Your task to perform on an android device: choose inbox layout in the gmail app Image 0: 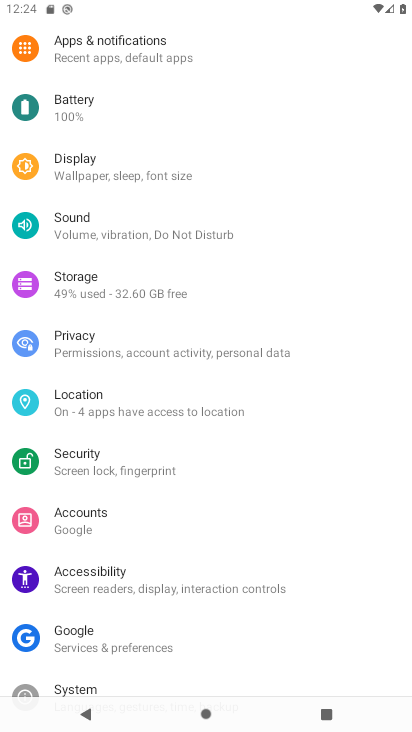
Step 0: press home button
Your task to perform on an android device: choose inbox layout in the gmail app Image 1: 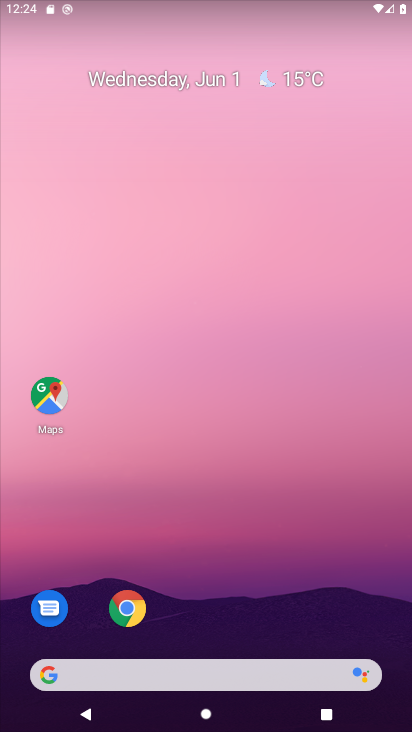
Step 1: drag from (210, 618) to (282, 37)
Your task to perform on an android device: choose inbox layout in the gmail app Image 2: 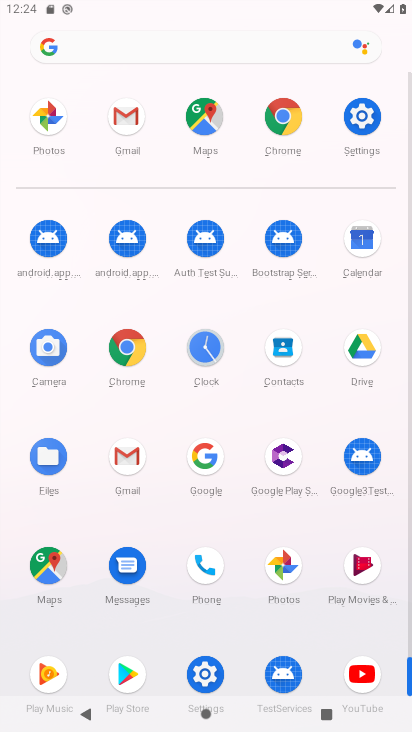
Step 2: click (127, 467)
Your task to perform on an android device: choose inbox layout in the gmail app Image 3: 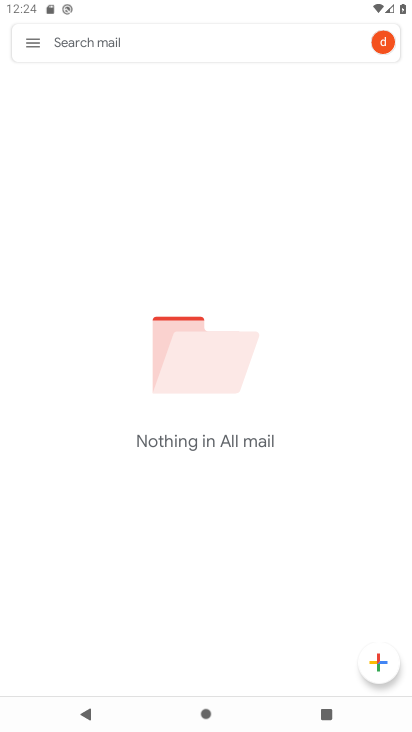
Step 3: click (43, 38)
Your task to perform on an android device: choose inbox layout in the gmail app Image 4: 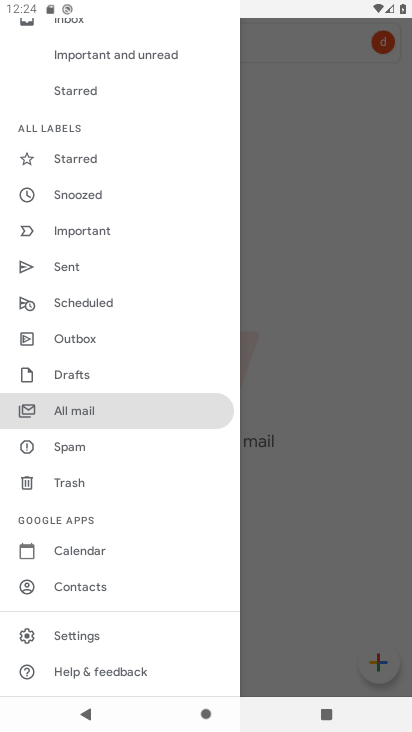
Step 4: click (72, 636)
Your task to perform on an android device: choose inbox layout in the gmail app Image 5: 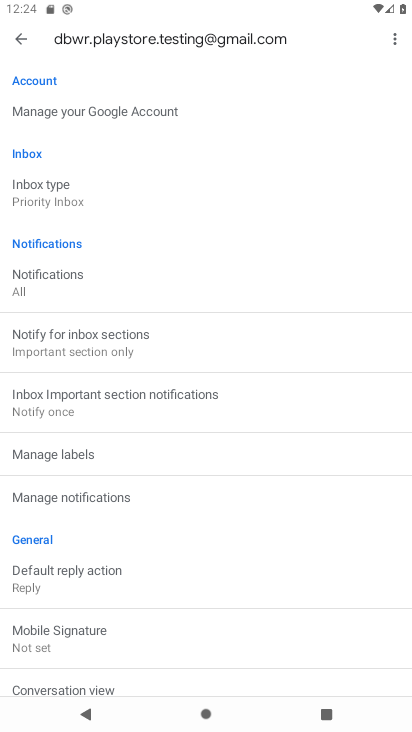
Step 5: click (77, 198)
Your task to perform on an android device: choose inbox layout in the gmail app Image 6: 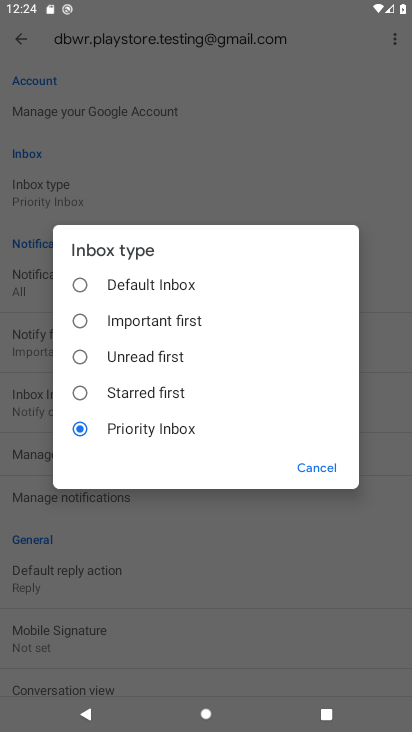
Step 6: click (113, 315)
Your task to perform on an android device: choose inbox layout in the gmail app Image 7: 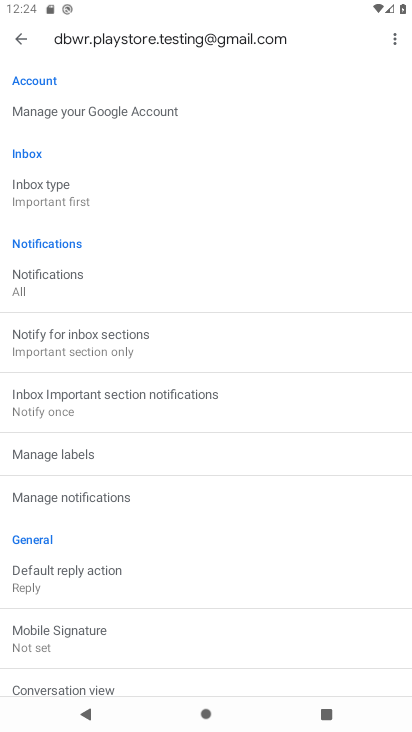
Step 7: task complete